Your task to perform on an android device: Open wifi settings Image 0: 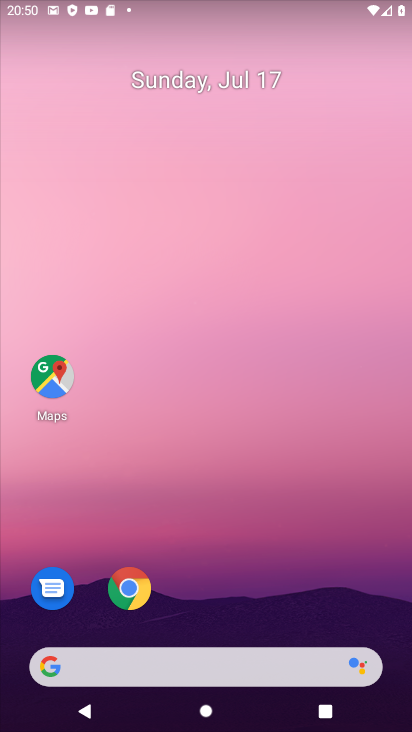
Step 0: press home button
Your task to perform on an android device: Open wifi settings Image 1: 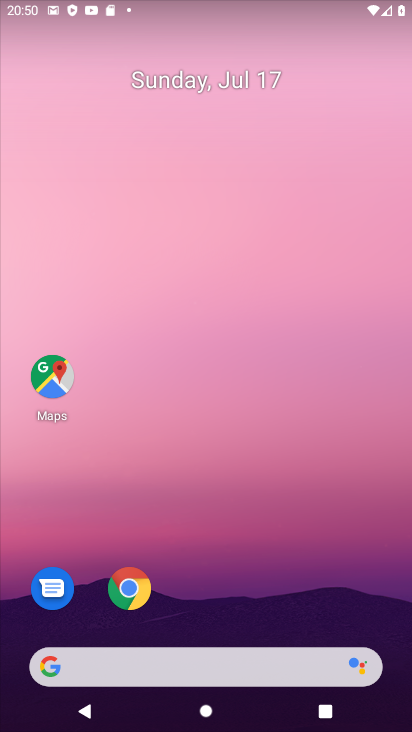
Step 1: drag from (372, 6) to (354, 487)
Your task to perform on an android device: Open wifi settings Image 2: 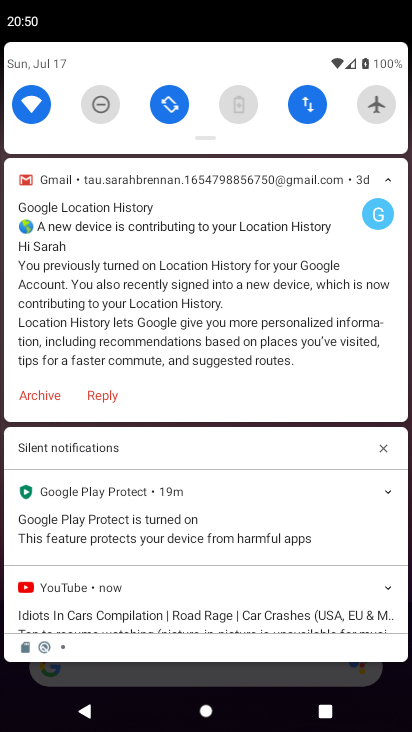
Step 2: click (49, 100)
Your task to perform on an android device: Open wifi settings Image 3: 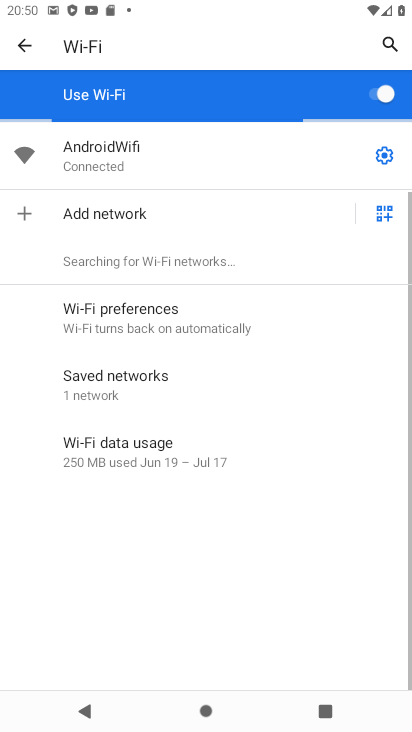
Step 3: task complete